Your task to perform on an android device: Search for vegetarian restaurants on Maps Image 0: 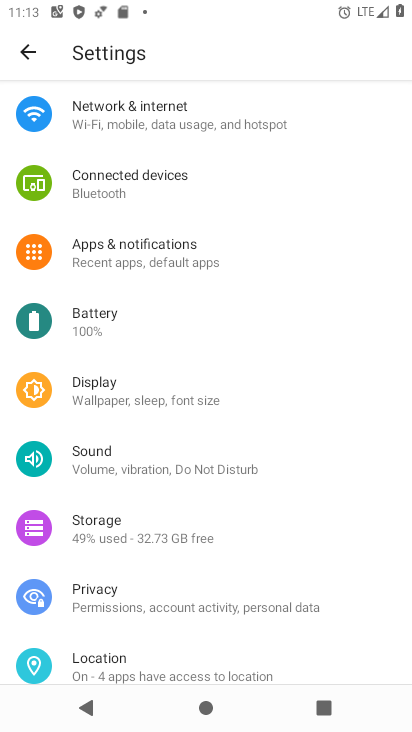
Step 0: press home button
Your task to perform on an android device: Search for vegetarian restaurants on Maps Image 1: 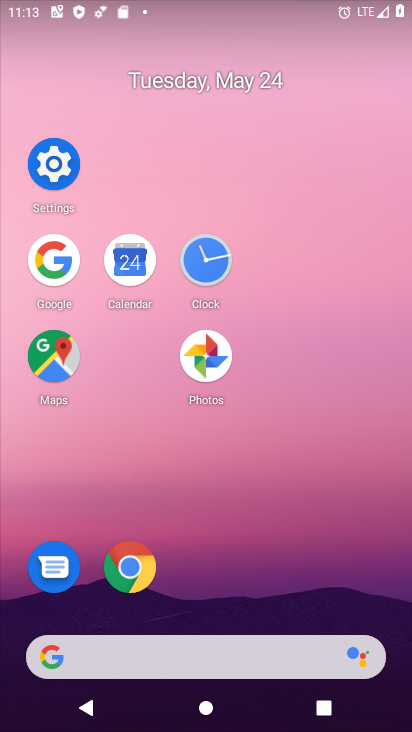
Step 1: click (57, 347)
Your task to perform on an android device: Search for vegetarian restaurants on Maps Image 2: 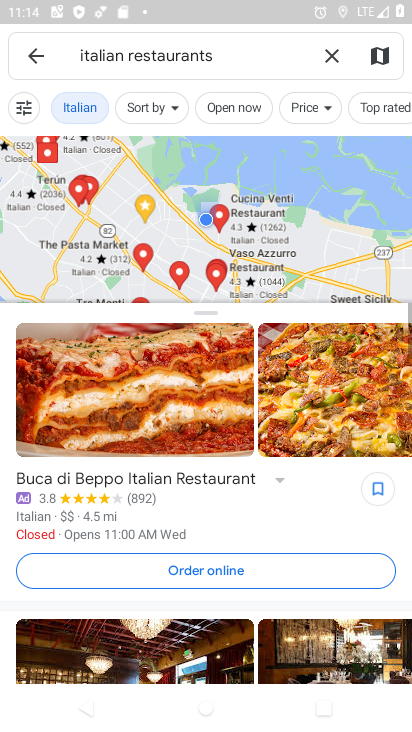
Step 2: click (330, 56)
Your task to perform on an android device: Search for vegetarian restaurants on Maps Image 3: 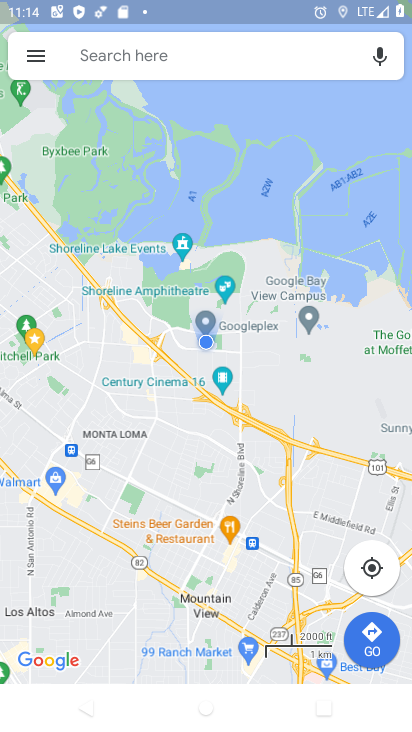
Step 3: click (185, 43)
Your task to perform on an android device: Search for vegetarian restaurants on Maps Image 4: 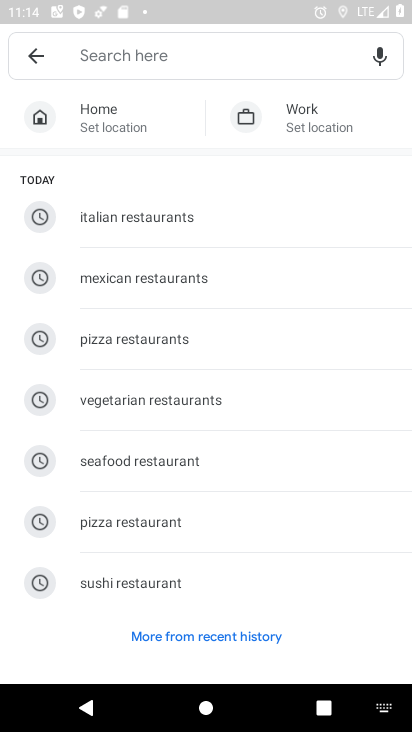
Step 4: click (173, 396)
Your task to perform on an android device: Search for vegetarian restaurants on Maps Image 5: 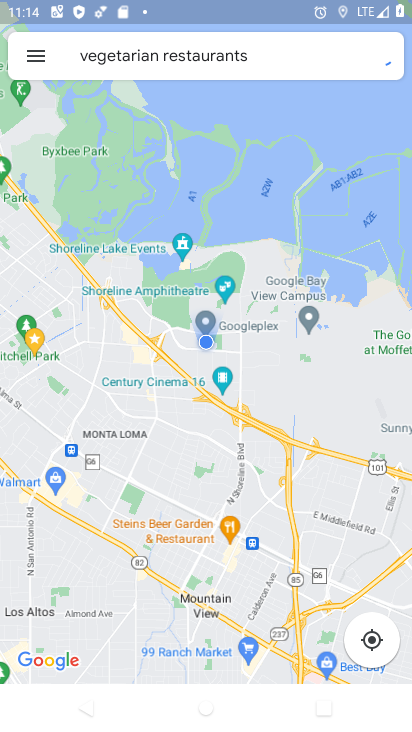
Step 5: task complete